Your task to perform on an android device: Open notification settings Image 0: 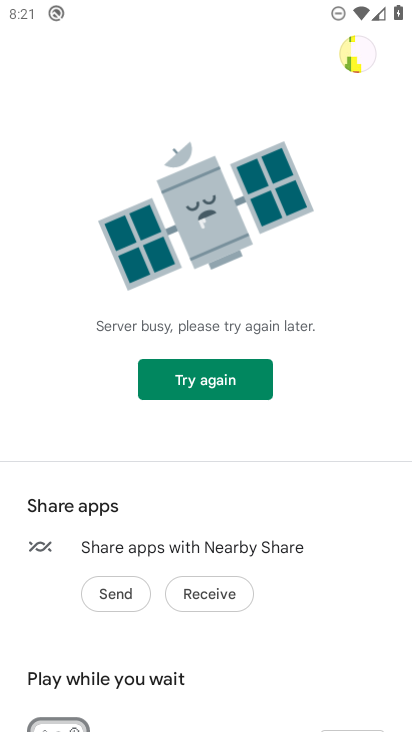
Step 0: press home button
Your task to perform on an android device: Open notification settings Image 1: 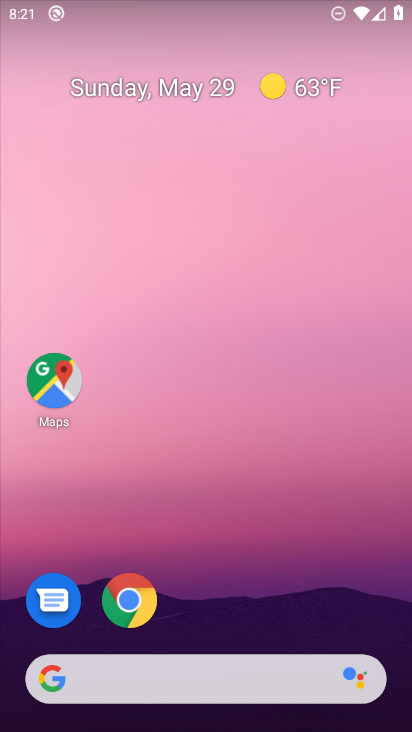
Step 1: drag from (125, 730) to (132, 2)
Your task to perform on an android device: Open notification settings Image 2: 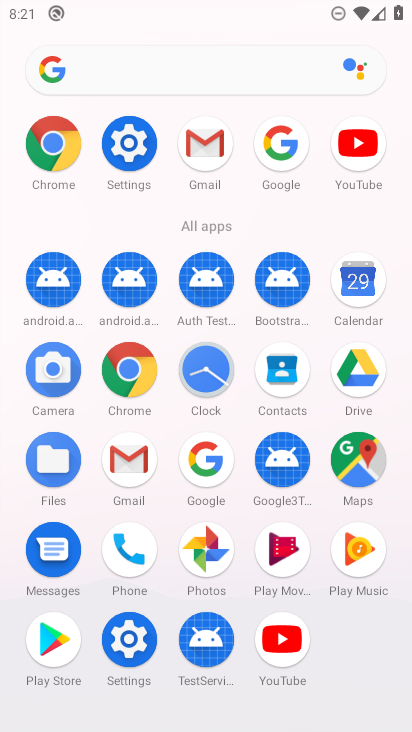
Step 2: click (129, 160)
Your task to perform on an android device: Open notification settings Image 3: 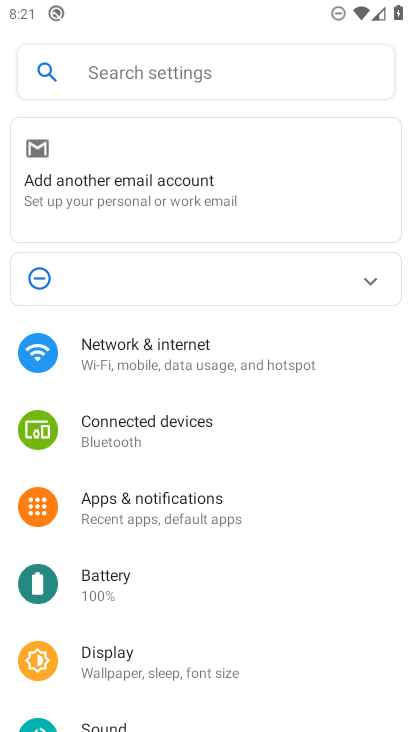
Step 3: click (187, 517)
Your task to perform on an android device: Open notification settings Image 4: 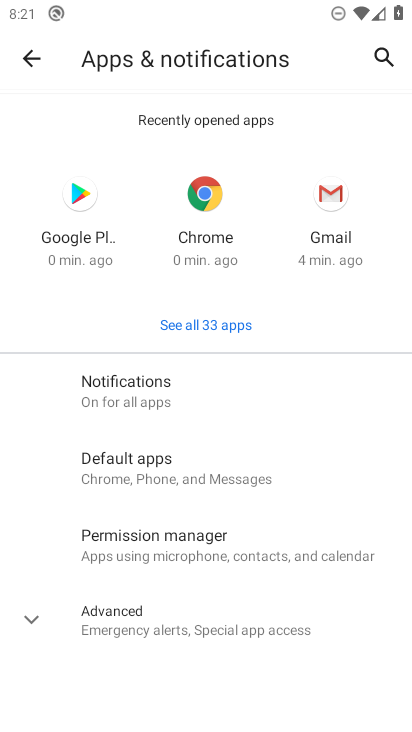
Step 4: task complete